Your task to perform on an android device: turn notification dots off Image 0: 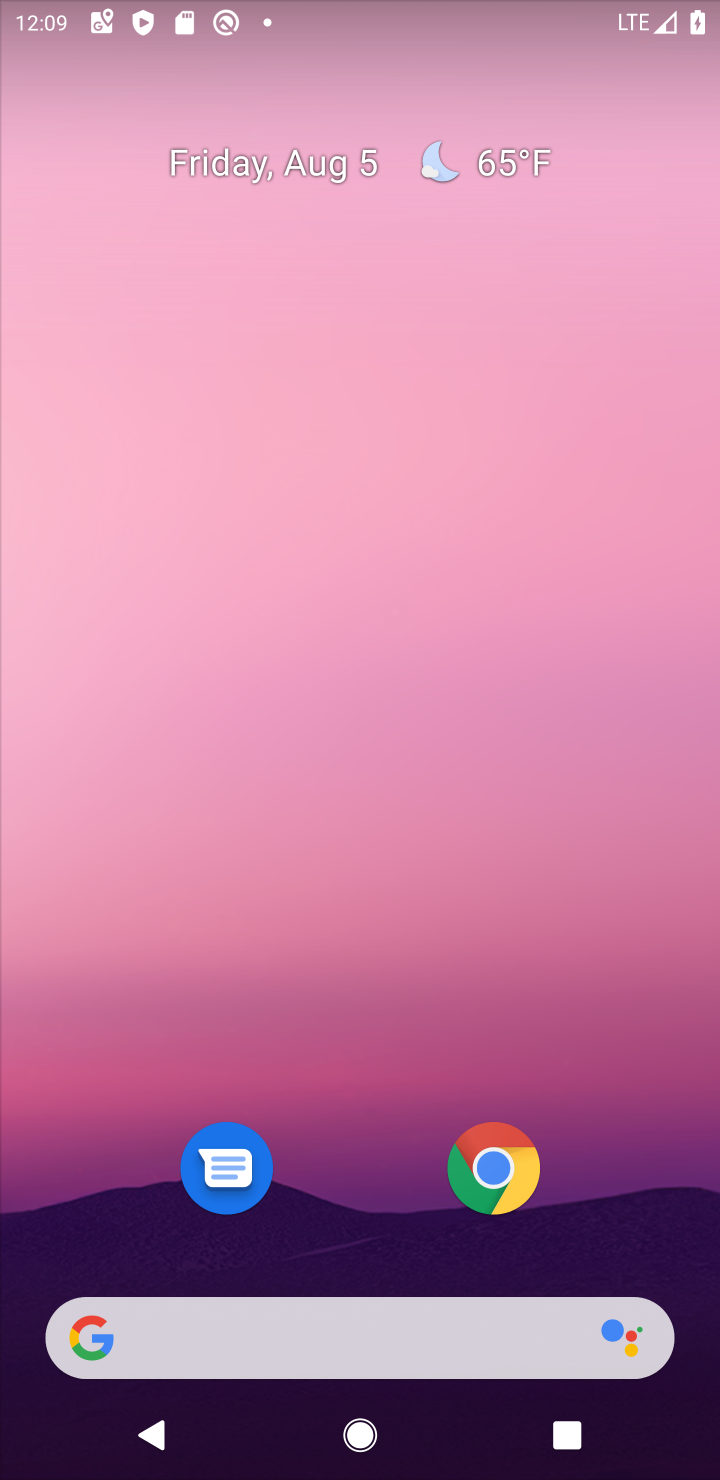
Step 0: drag from (568, 518) to (490, 0)
Your task to perform on an android device: turn notification dots off Image 1: 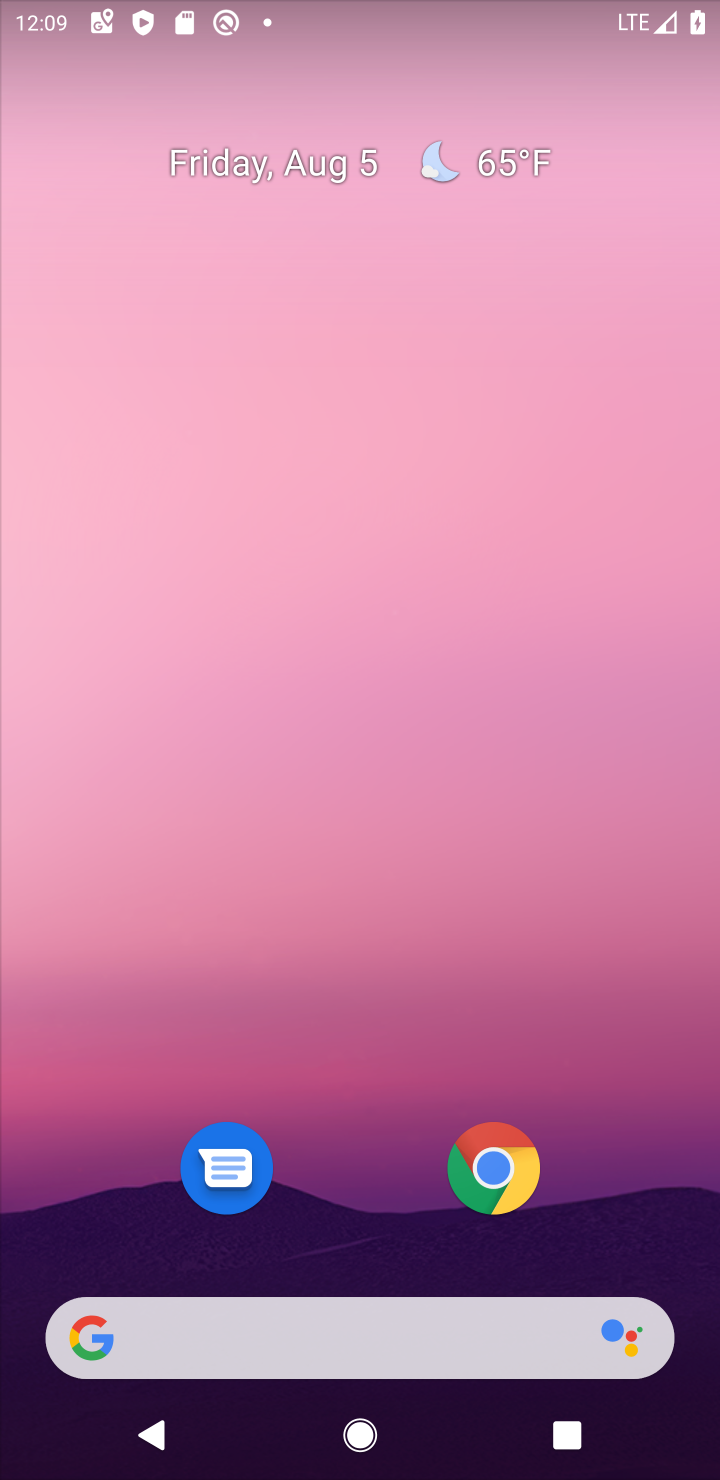
Step 1: drag from (664, 1256) to (475, 24)
Your task to perform on an android device: turn notification dots off Image 2: 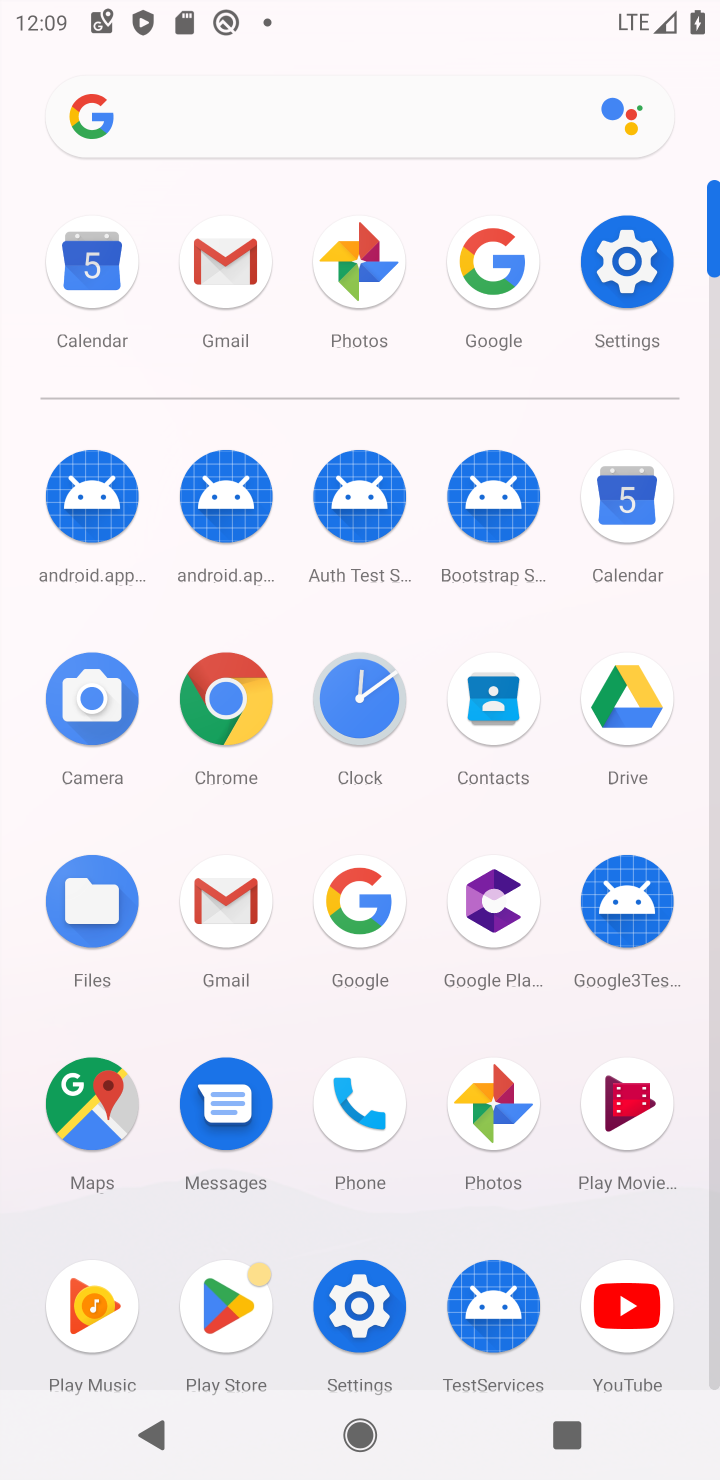
Step 2: click (644, 265)
Your task to perform on an android device: turn notification dots off Image 3: 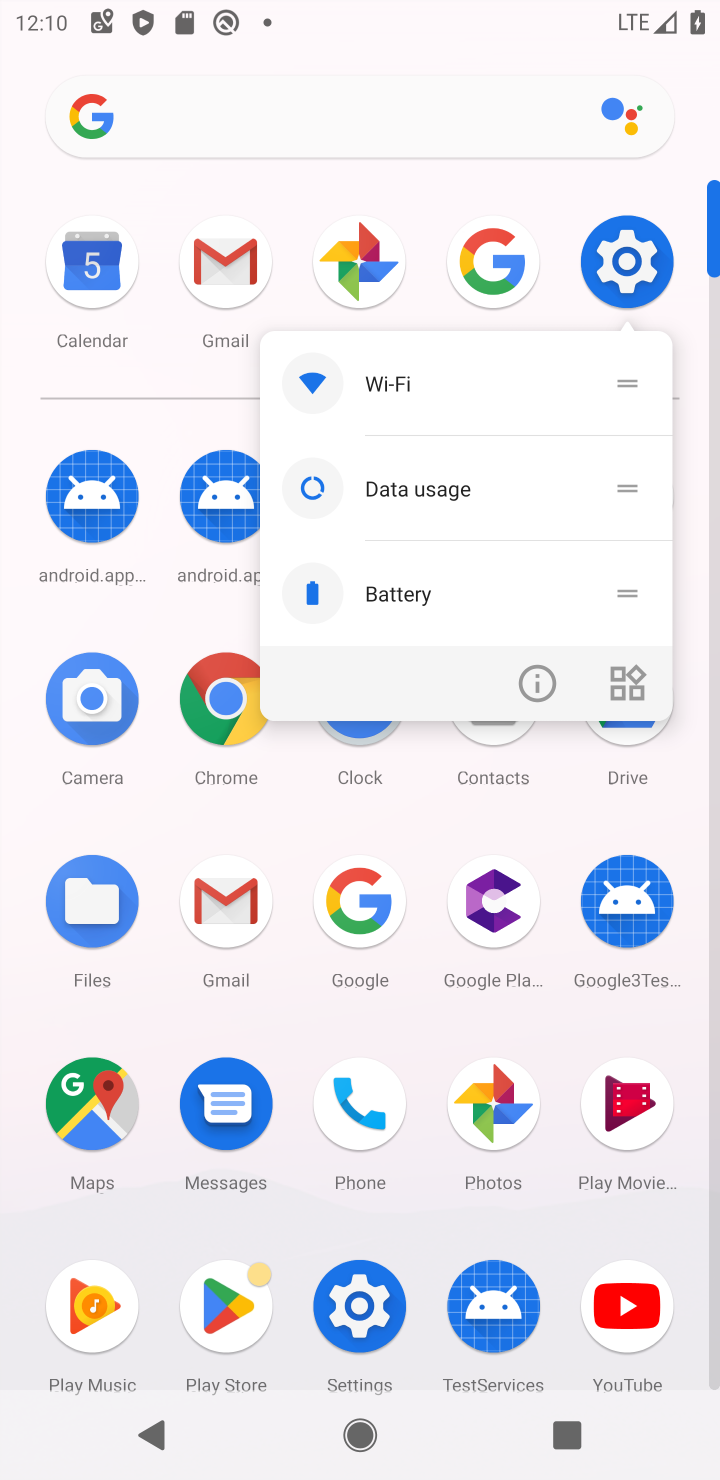
Step 3: click (613, 251)
Your task to perform on an android device: turn notification dots off Image 4: 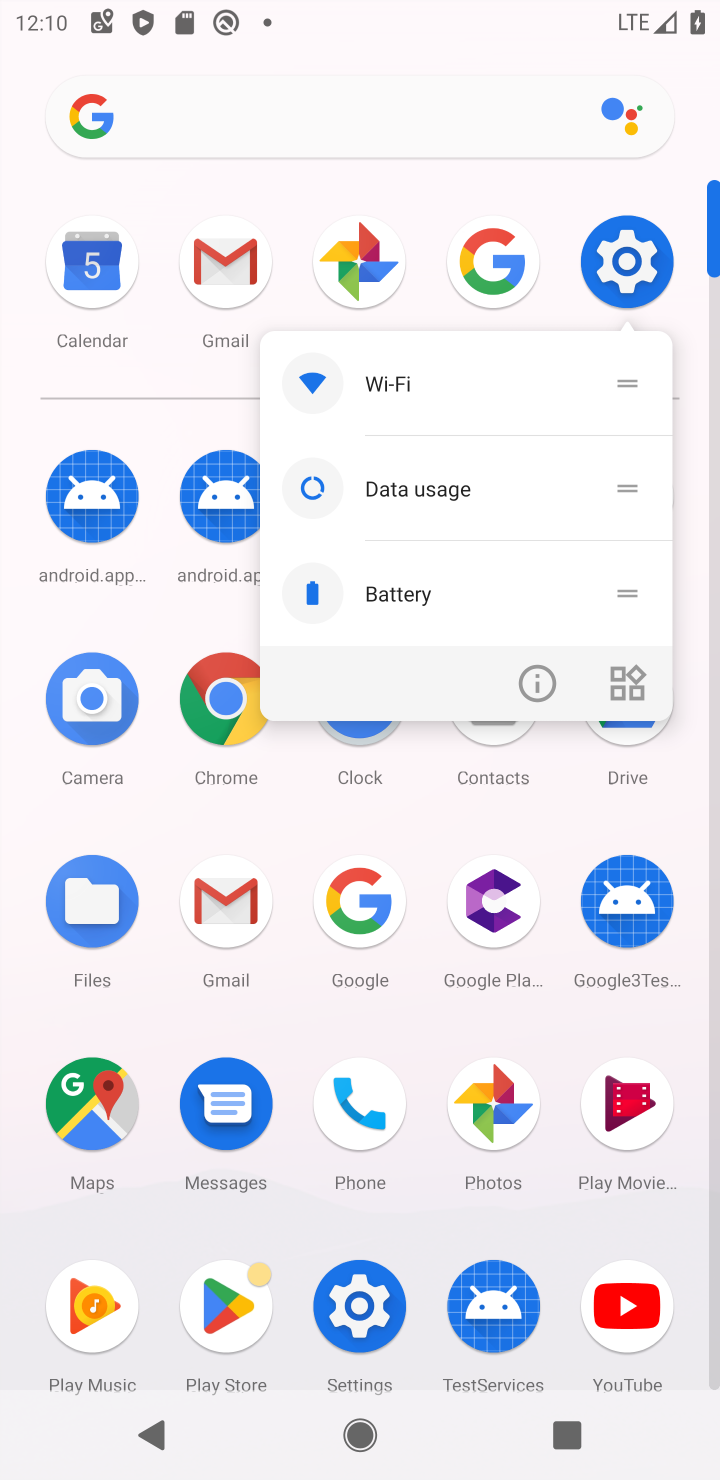
Step 4: click (613, 251)
Your task to perform on an android device: turn notification dots off Image 5: 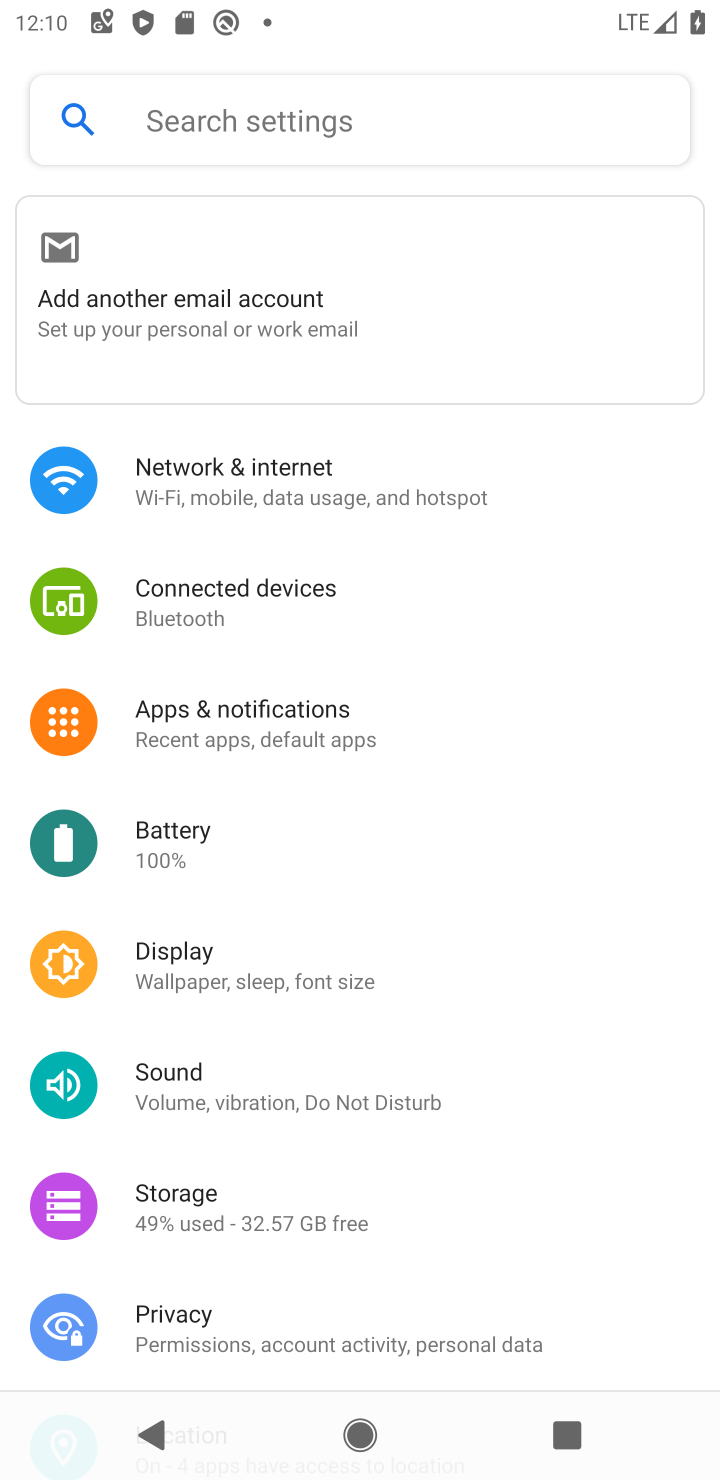
Step 5: click (329, 735)
Your task to perform on an android device: turn notification dots off Image 6: 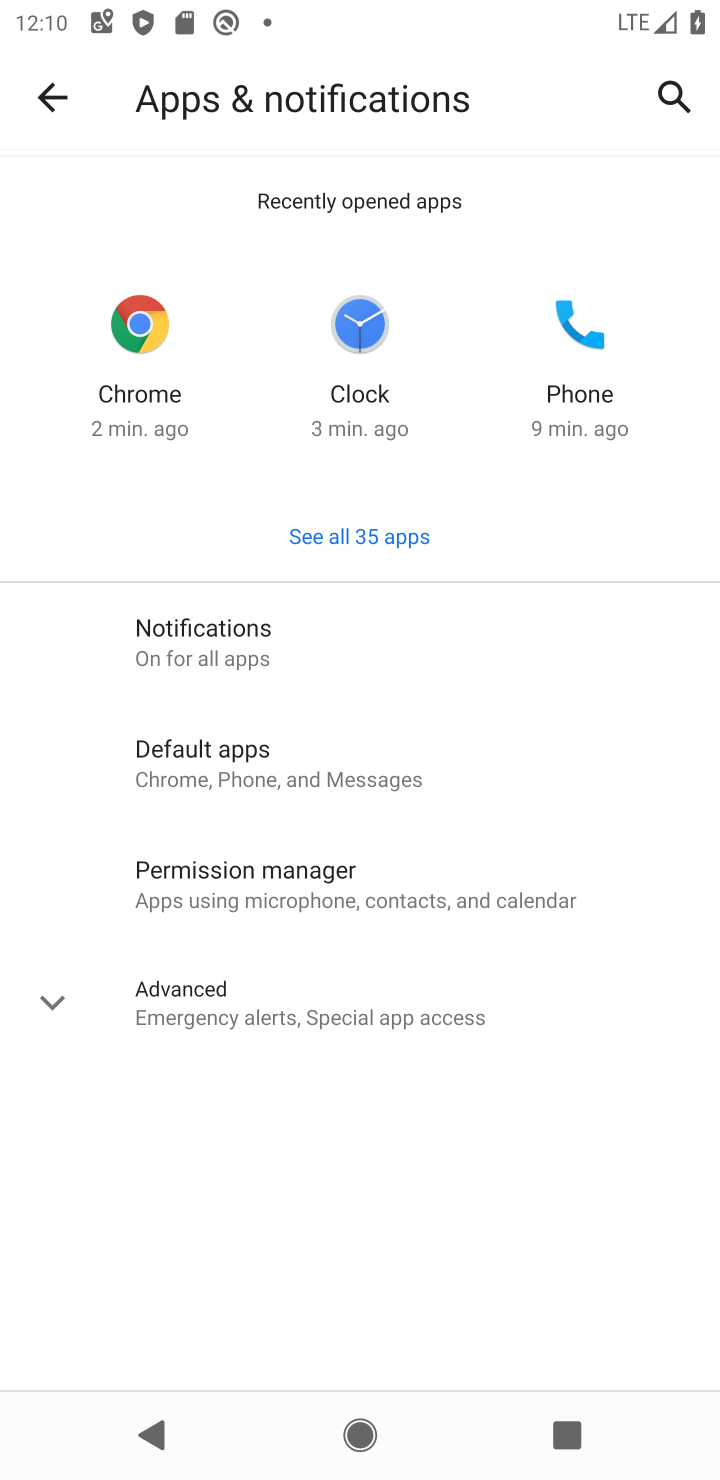
Step 6: click (175, 671)
Your task to perform on an android device: turn notification dots off Image 7: 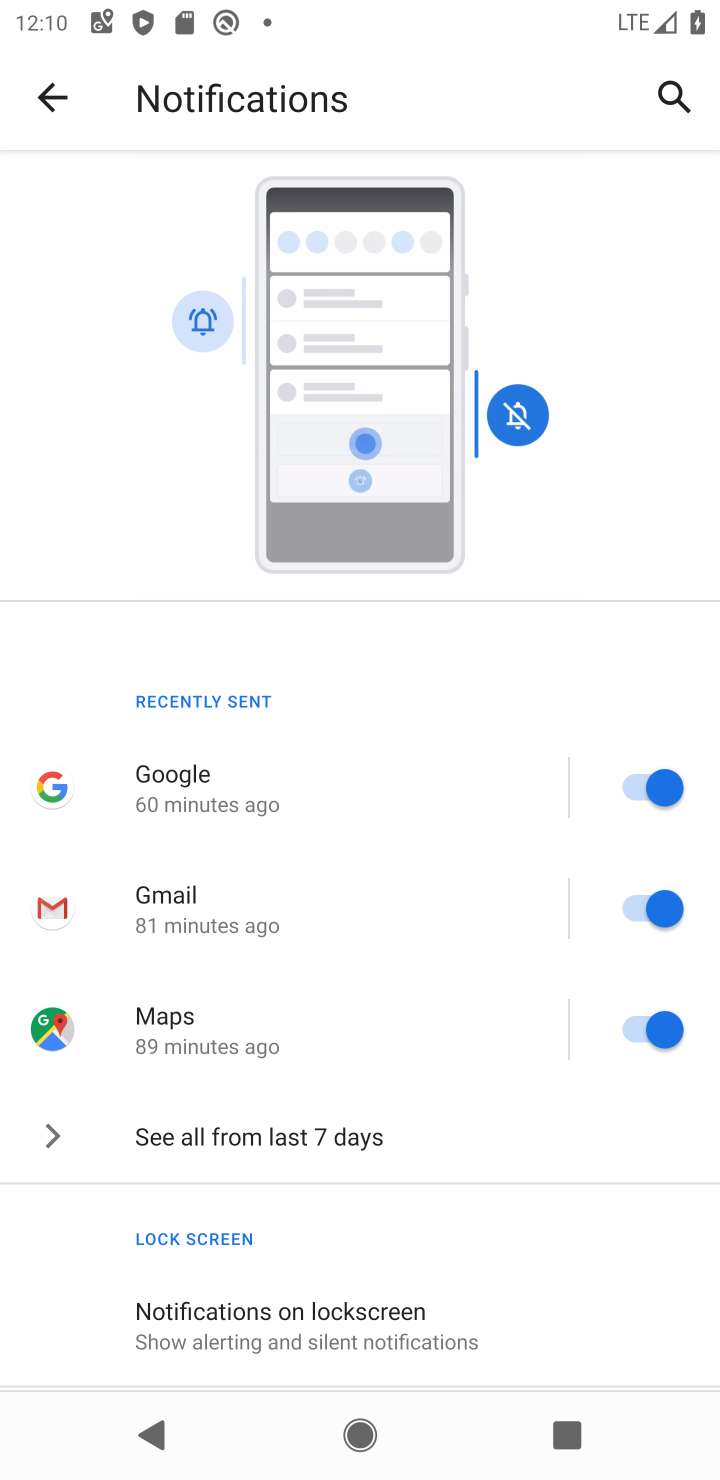
Step 7: drag from (340, 1352) to (370, 351)
Your task to perform on an android device: turn notification dots off Image 8: 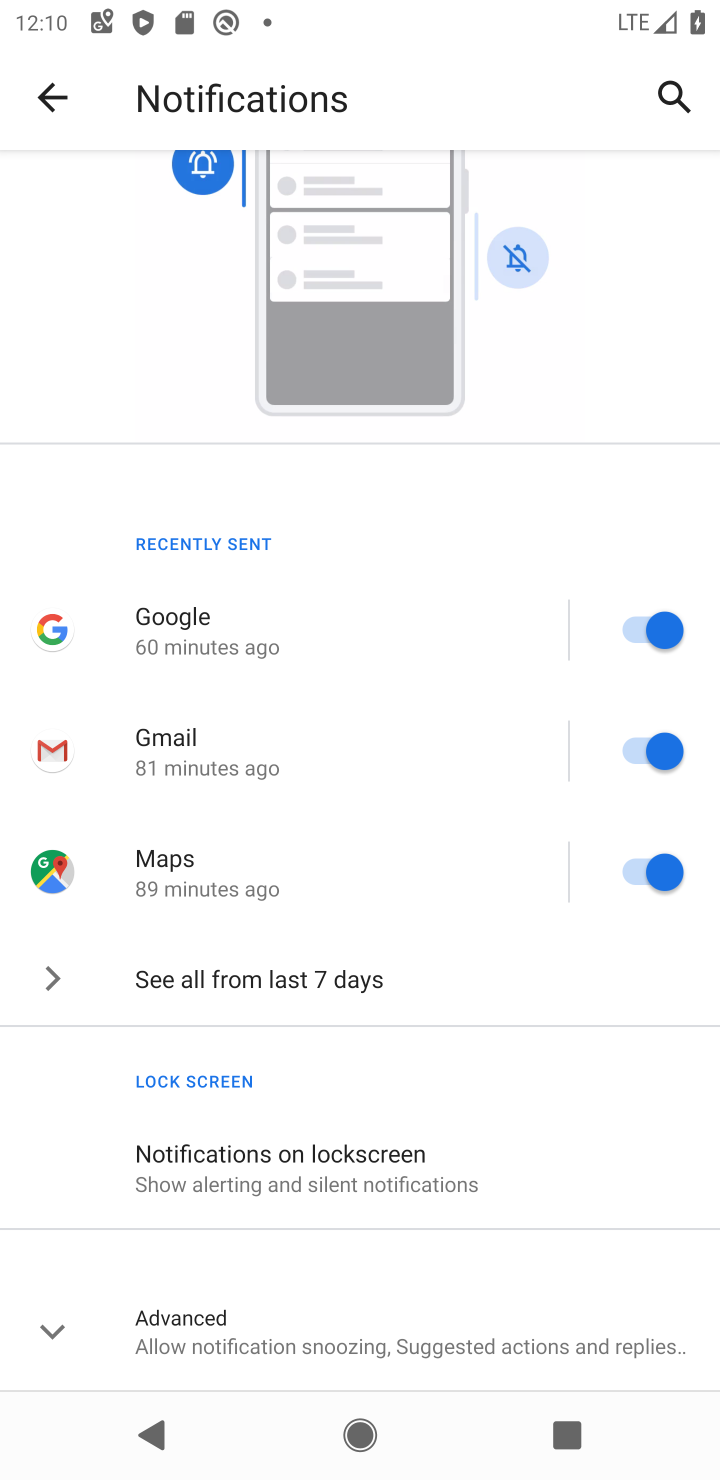
Step 8: click (236, 1346)
Your task to perform on an android device: turn notification dots off Image 9: 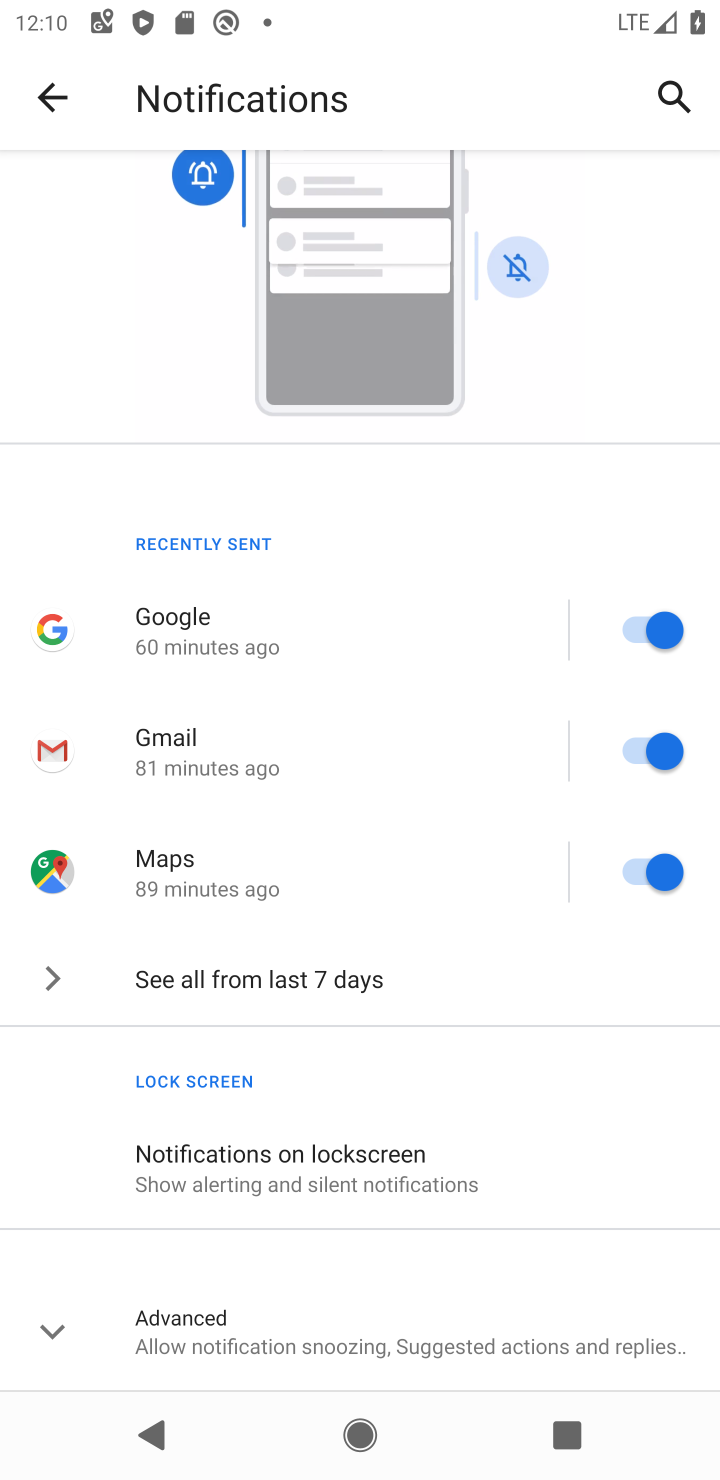
Step 9: drag from (236, 1346) to (410, 140)
Your task to perform on an android device: turn notification dots off Image 10: 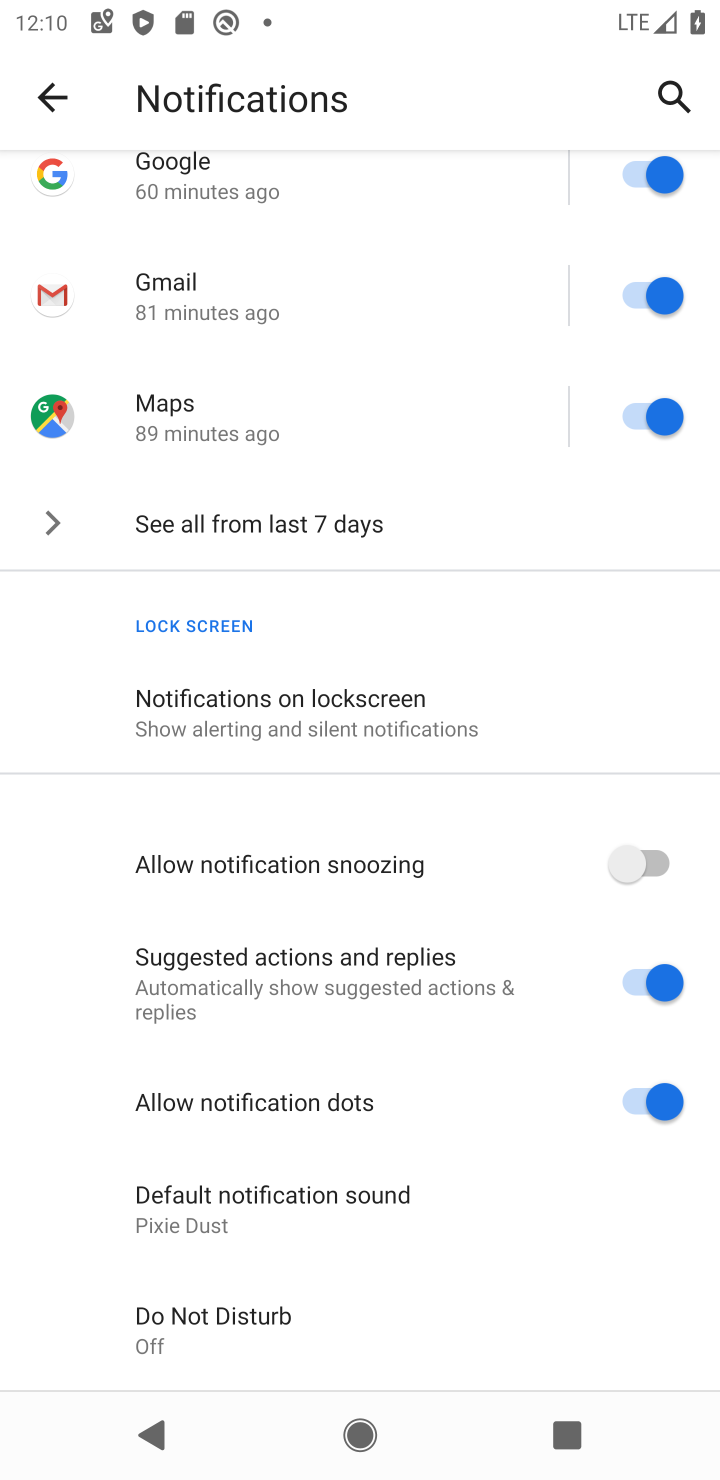
Step 10: click (497, 1100)
Your task to perform on an android device: turn notification dots off Image 11: 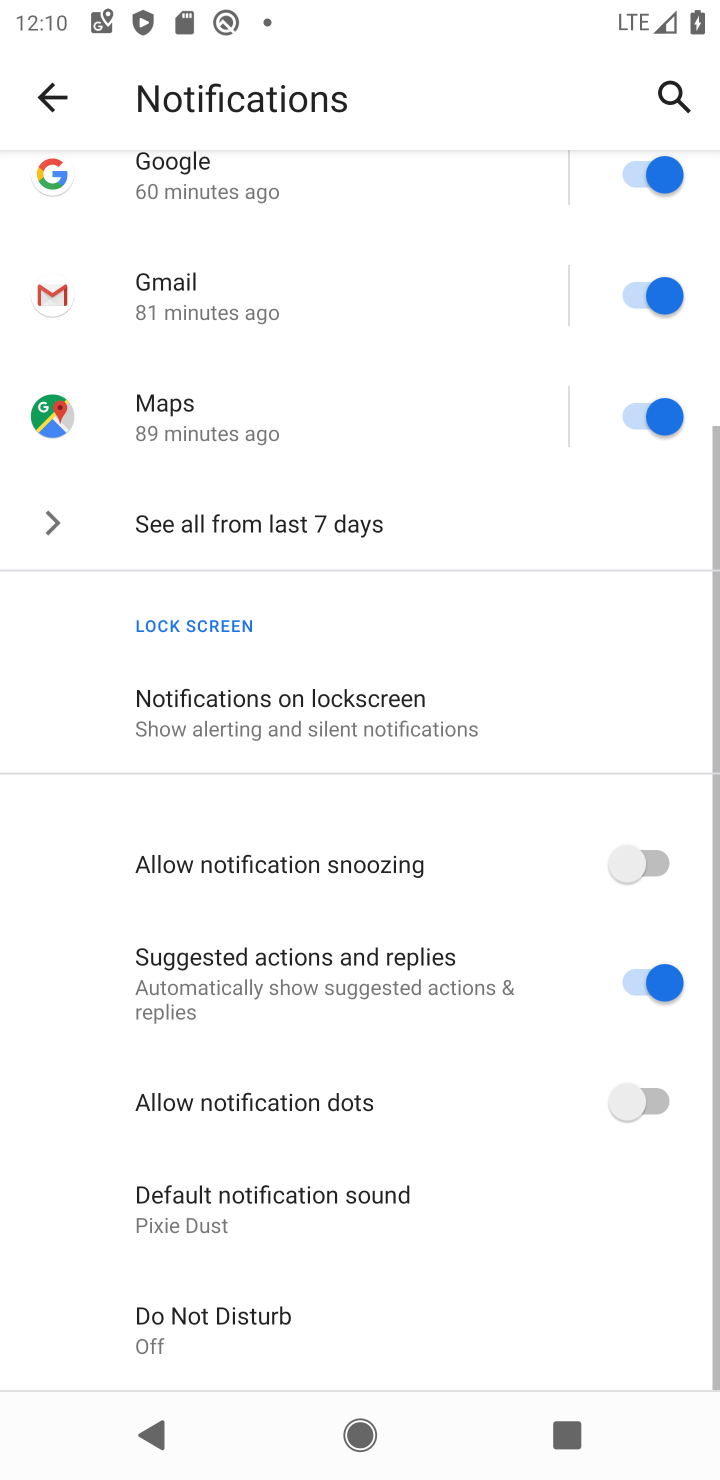
Step 11: task complete